Your task to perform on an android device: What's the weather today? Image 0: 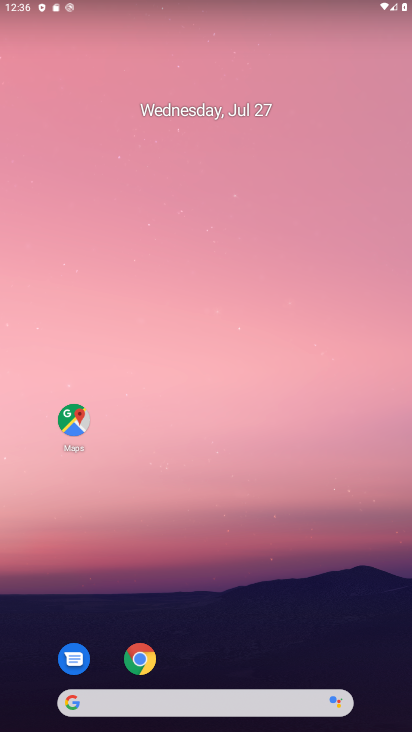
Step 0: drag from (309, 582) to (235, 50)
Your task to perform on an android device: What's the weather today? Image 1: 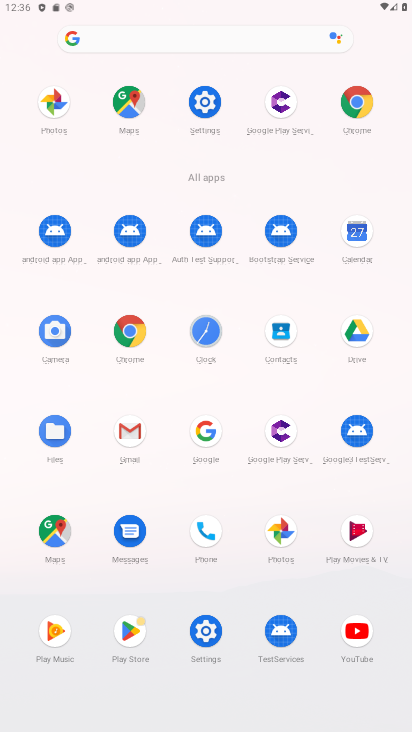
Step 1: click (354, 105)
Your task to perform on an android device: What's the weather today? Image 2: 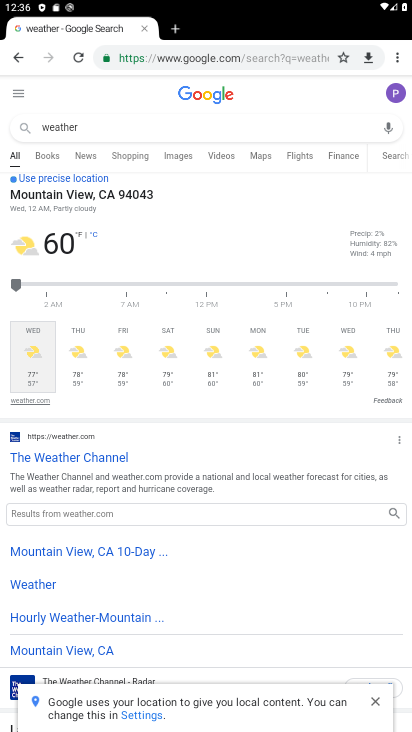
Step 2: click (222, 58)
Your task to perform on an android device: What's the weather today? Image 3: 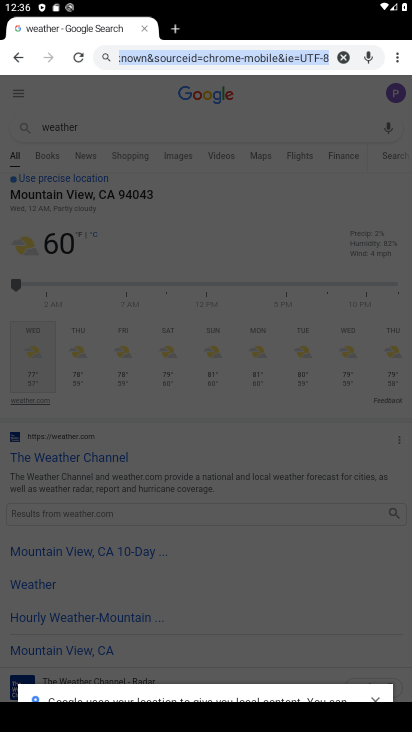
Step 3: click (242, 313)
Your task to perform on an android device: What's the weather today? Image 4: 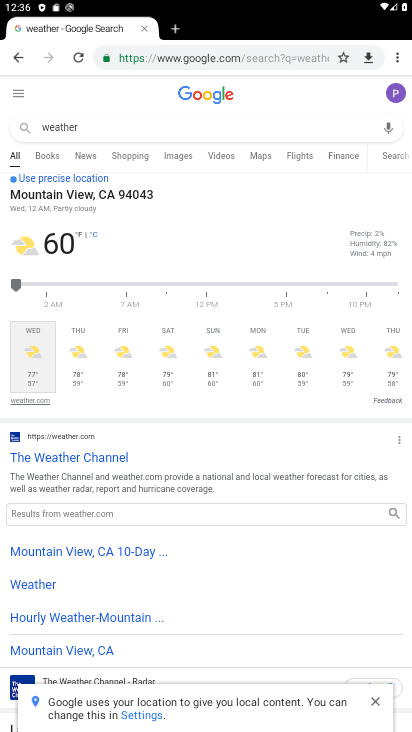
Step 4: task complete